Your task to perform on an android device: add a contact Image 0: 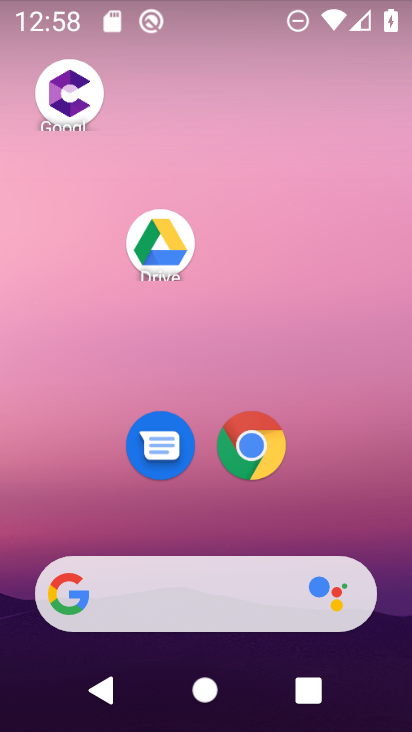
Step 0: drag from (239, 464) to (286, 151)
Your task to perform on an android device: add a contact Image 1: 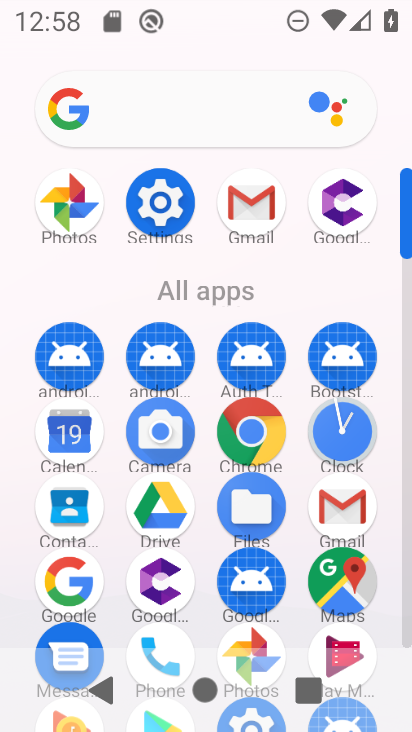
Step 1: click (67, 504)
Your task to perform on an android device: add a contact Image 2: 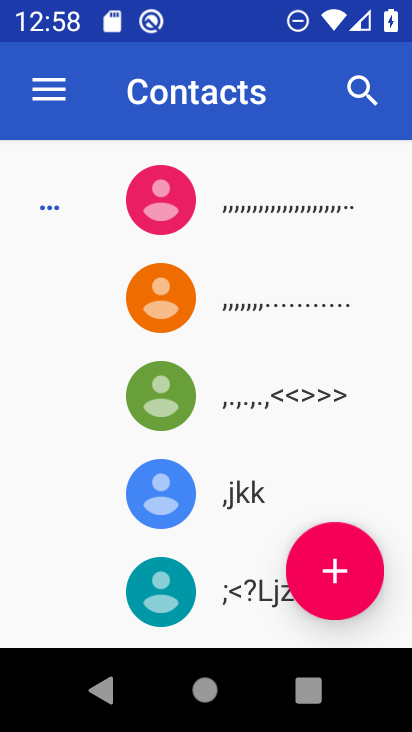
Step 2: click (325, 567)
Your task to perform on an android device: add a contact Image 3: 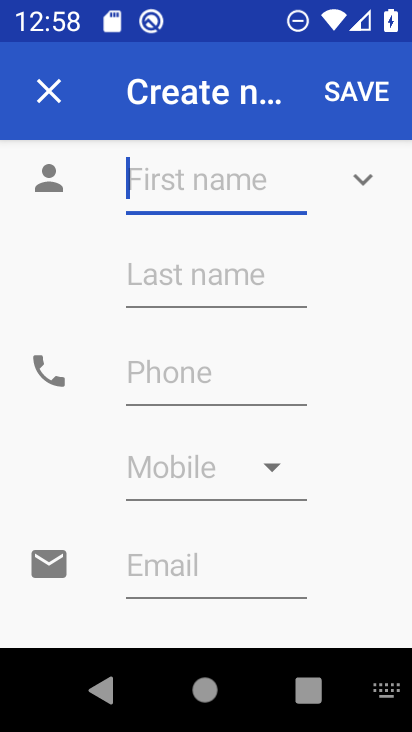
Step 3: type "xbv vxcgx"
Your task to perform on an android device: add a contact Image 4: 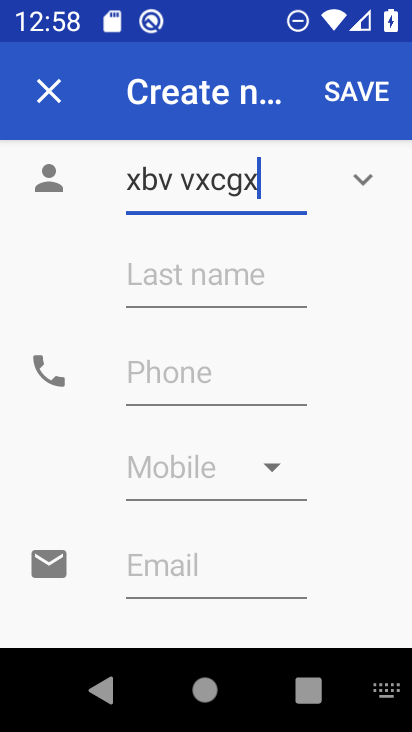
Step 4: type ""
Your task to perform on an android device: add a contact Image 5: 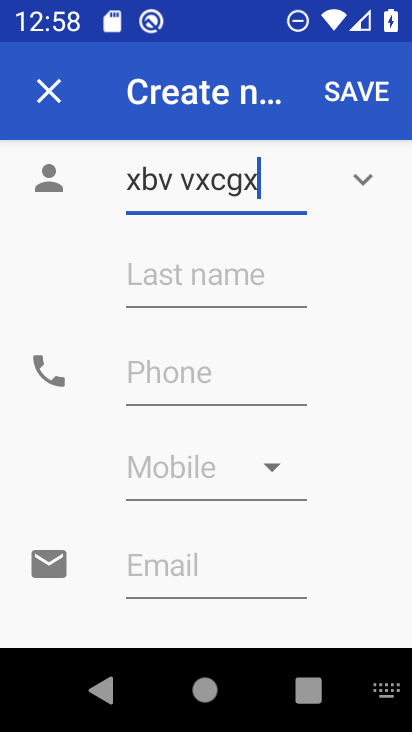
Step 5: click (367, 102)
Your task to perform on an android device: add a contact Image 6: 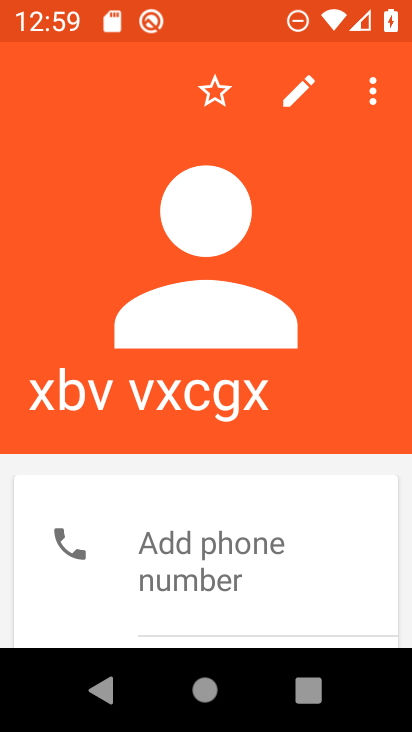
Step 6: task complete